Your task to perform on an android device: remove spam from my inbox in the gmail app Image 0: 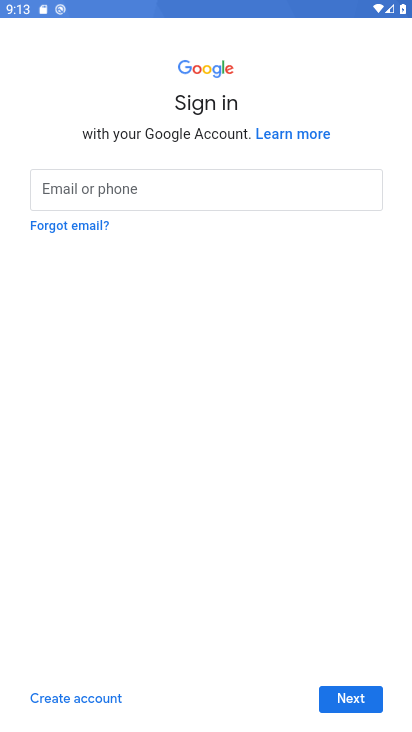
Step 0: press home button
Your task to perform on an android device: remove spam from my inbox in the gmail app Image 1: 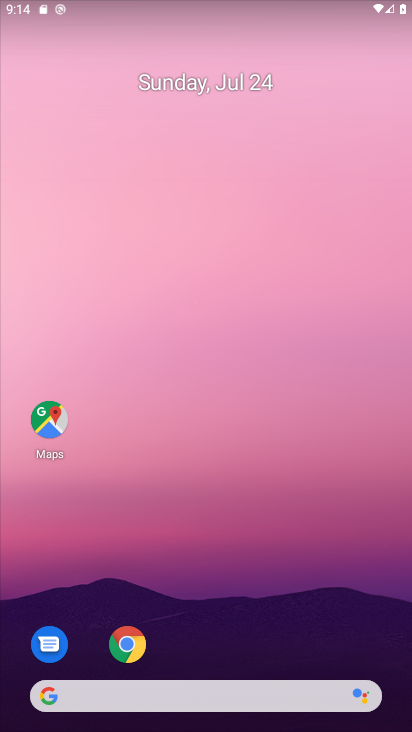
Step 1: drag from (298, 596) to (7, 95)
Your task to perform on an android device: remove spam from my inbox in the gmail app Image 2: 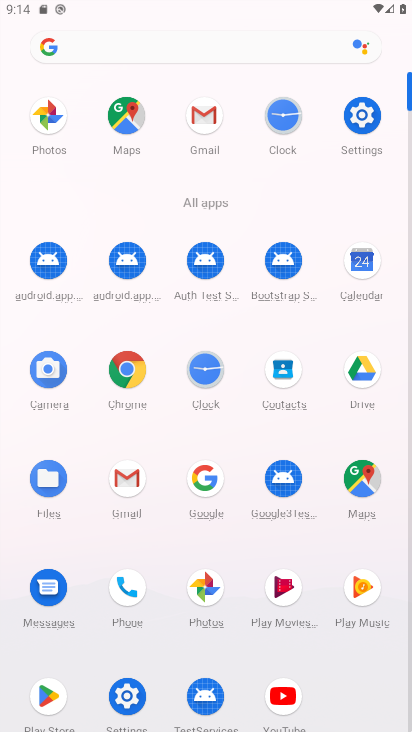
Step 2: click (194, 156)
Your task to perform on an android device: remove spam from my inbox in the gmail app Image 3: 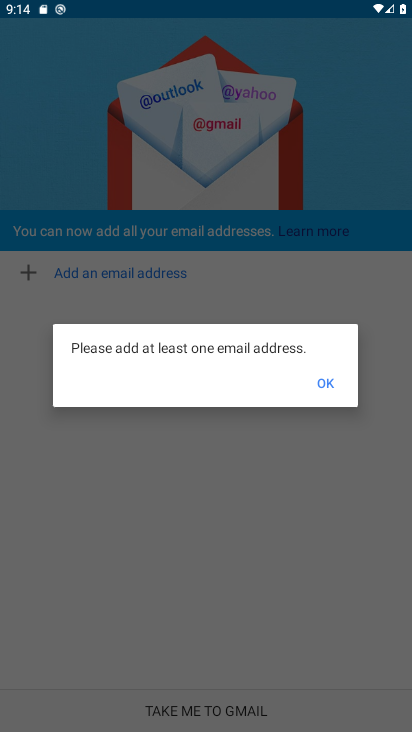
Step 3: task complete